Your task to perform on an android device: Search for the best selling video games at Target Image 0: 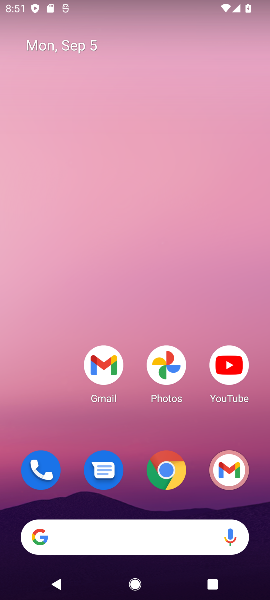
Step 0: click (116, 541)
Your task to perform on an android device: Search for the best selling video games at Target Image 1: 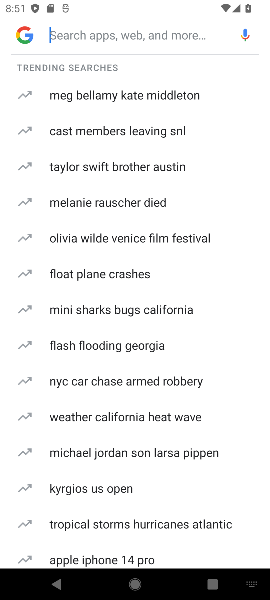
Step 1: type "target"
Your task to perform on an android device: Search for the best selling video games at Target Image 2: 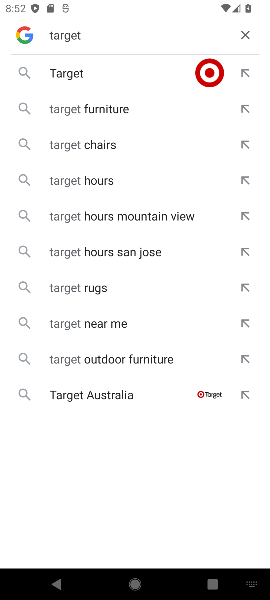
Step 2: click (65, 70)
Your task to perform on an android device: Search for the best selling video games at Target Image 3: 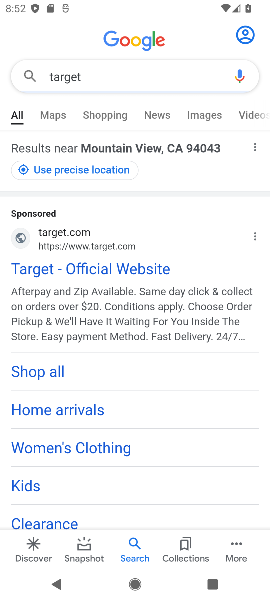
Step 3: click (52, 265)
Your task to perform on an android device: Search for the best selling video games at Target Image 4: 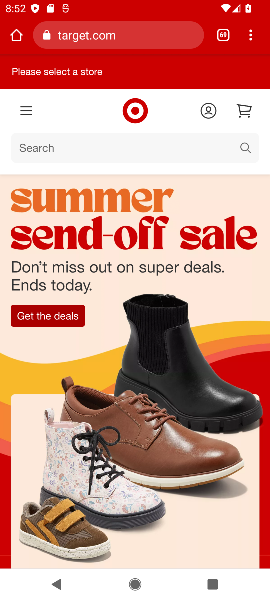
Step 4: click (116, 144)
Your task to perform on an android device: Search for the best selling video games at Target Image 5: 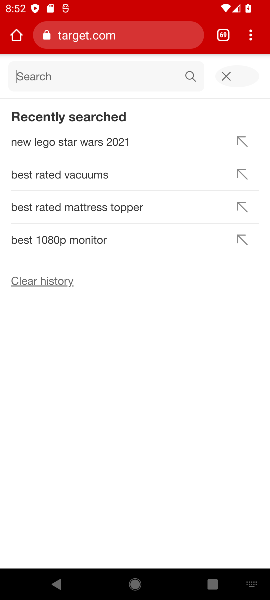
Step 5: type "best selling video games"
Your task to perform on an android device: Search for the best selling video games at Target Image 6: 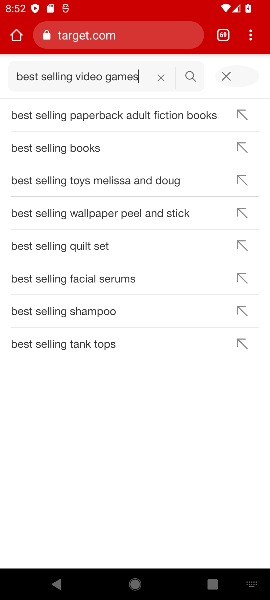
Step 6: click (192, 74)
Your task to perform on an android device: Search for the best selling video games at Target Image 7: 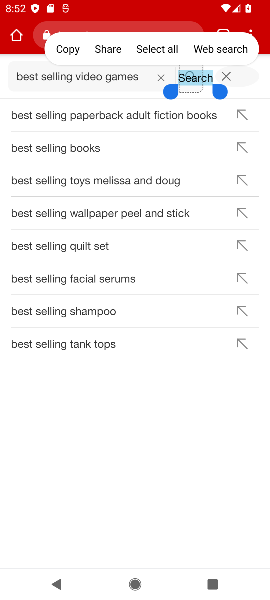
Step 7: click (186, 501)
Your task to perform on an android device: Search for the best selling video games at Target Image 8: 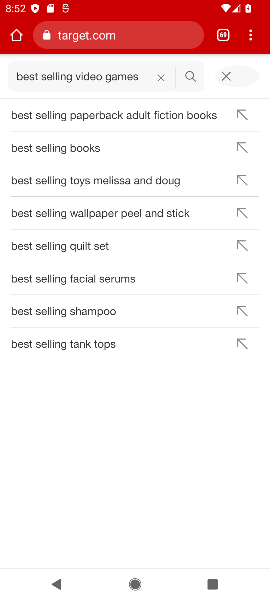
Step 8: click (189, 75)
Your task to perform on an android device: Search for the best selling video games at Target Image 9: 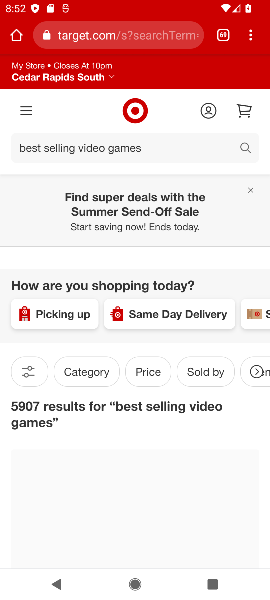
Step 9: task complete